Your task to perform on an android device: Open maps Image 0: 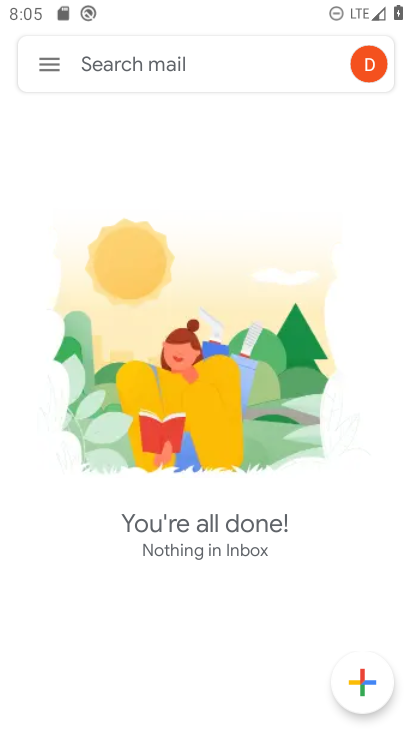
Step 0: press home button
Your task to perform on an android device: Open maps Image 1: 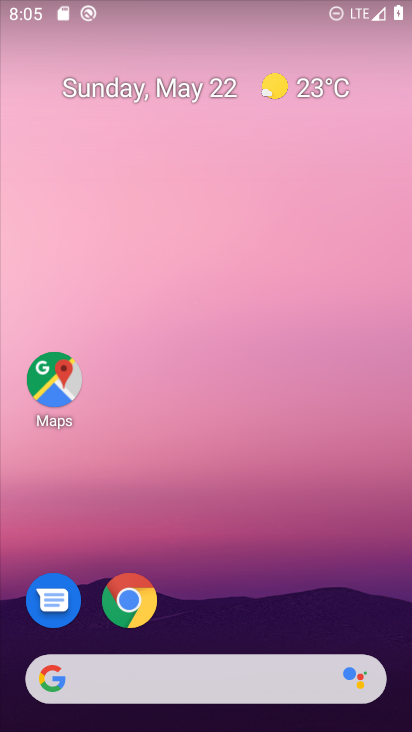
Step 1: drag from (364, 611) to (262, 87)
Your task to perform on an android device: Open maps Image 2: 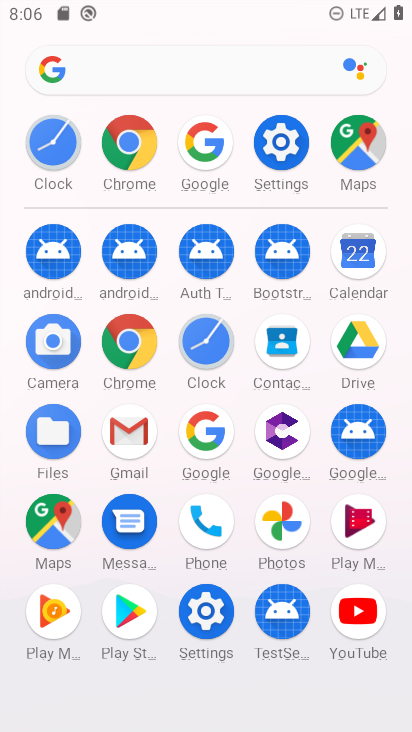
Step 2: click (372, 135)
Your task to perform on an android device: Open maps Image 3: 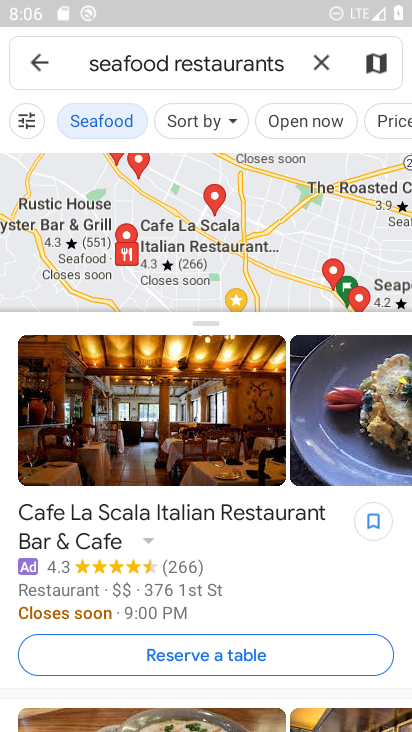
Step 3: click (318, 60)
Your task to perform on an android device: Open maps Image 4: 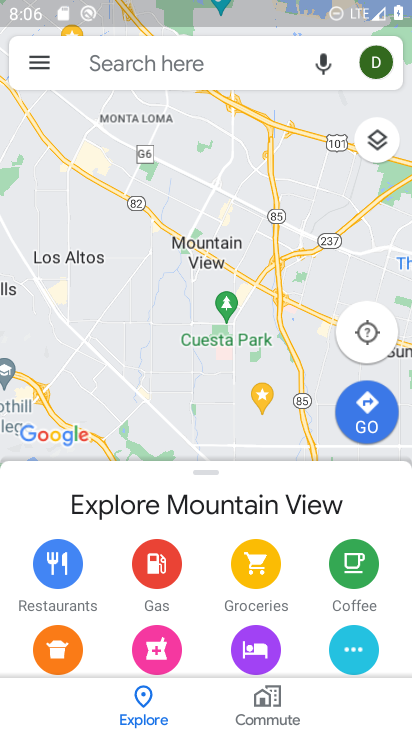
Step 4: task complete